Your task to perform on an android device: open a bookmark in the chrome app Image 0: 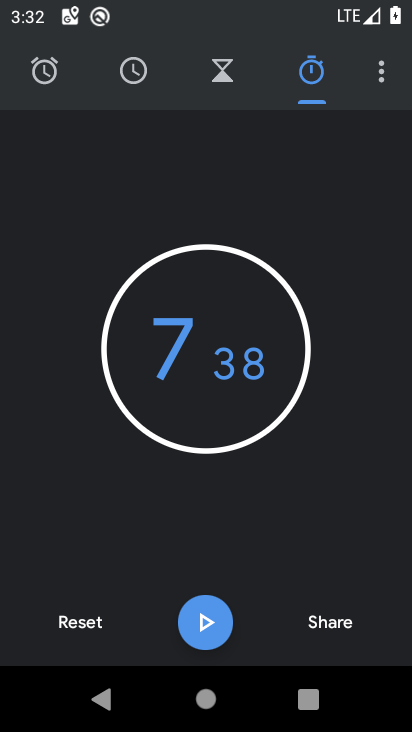
Step 0: press home button
Your task to perform on an android device: open a bookmark in the chrome app Image 1: 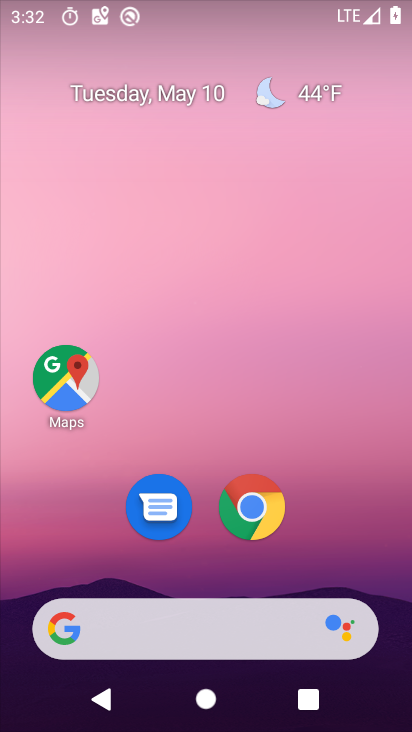
Step 1: click (246, 508)
Your task to perform on an android device: open a bookmark in the chrome app Image 2: 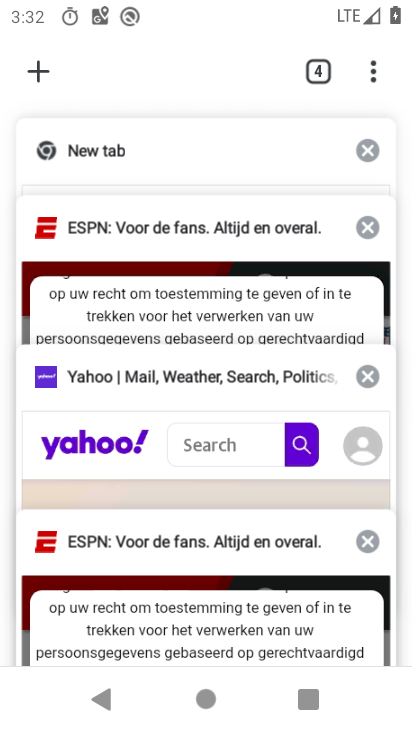
Step 2: click (371, 78)
Your task to perform on an android device: open a bookmark in the chrome app Image 3: 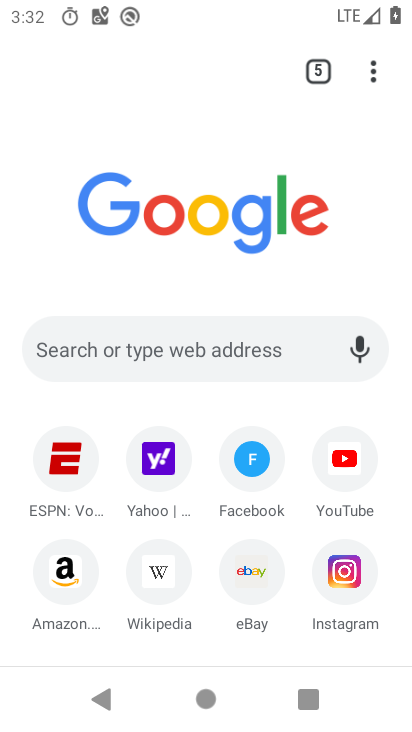
Step 3: click (371, 81)
Your task to perform on an android device: open a bookmark in the chrome app Image 4: 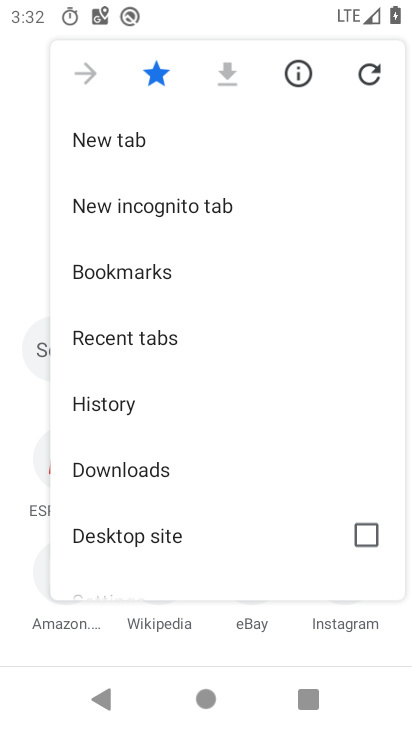
Step 4: click (127, 275)
Your task to perform on an android device: open a bookmark in the chrome app Image 5: 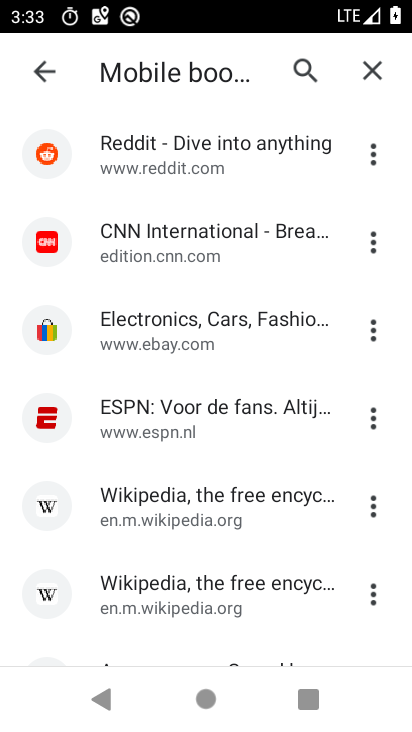
Step 5: task complete